Your task to perform on an android device: turn on location history Image 0: 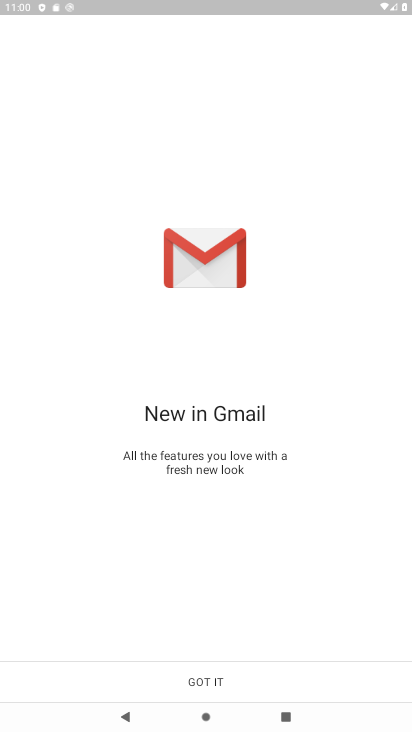
Step 0: press home button
Your task to perform on an android device: turn on location history Image 1: 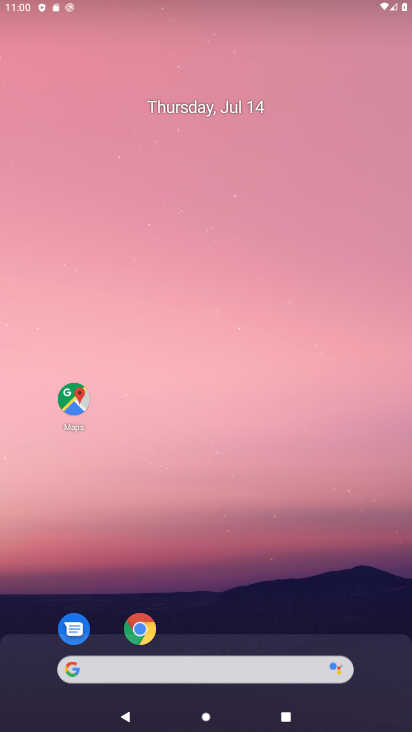
Step 1: drag from (213, 622) to (224, 52)
Your task to perform on an android device: turn on location history Image 2: 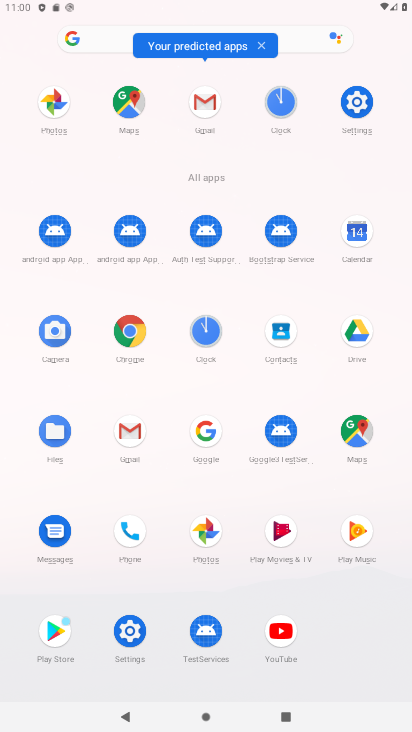
Step 2: click (368, 137)
Your task to perform on an android device: turn on location history Image 3: 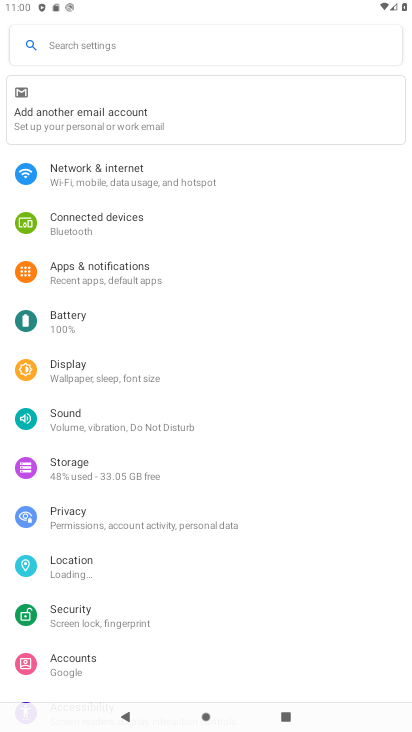
Step 3: drag from (230, 393) to (204, 612)
Your task to perform on an android device: turn on location history Image 4: 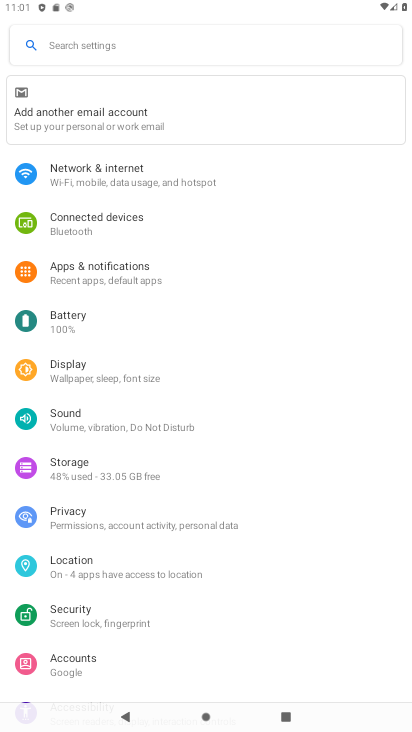
Step 4: click (144, 577)
Your task to perform on an android device: turn on location history Image 5: 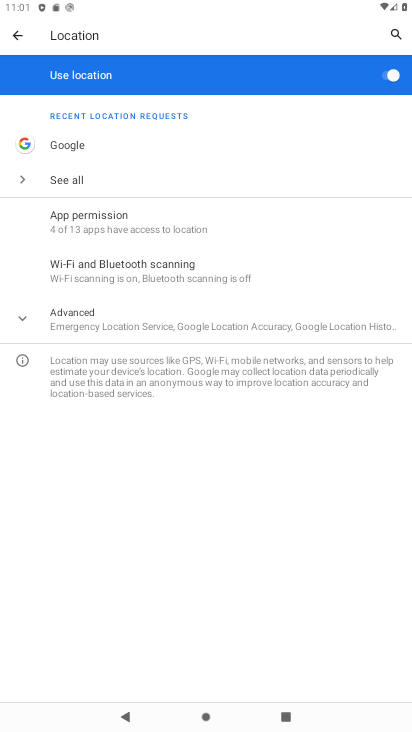
Step 5: click (182, 332)
Your task to perform on an android device: turn on location history Image 6: 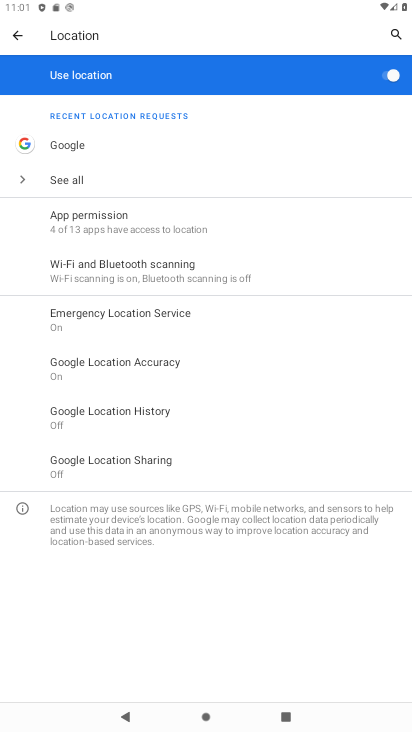
Step 6: click (159, 417)
Your task to perform on an android device: turn on location history Image 7: 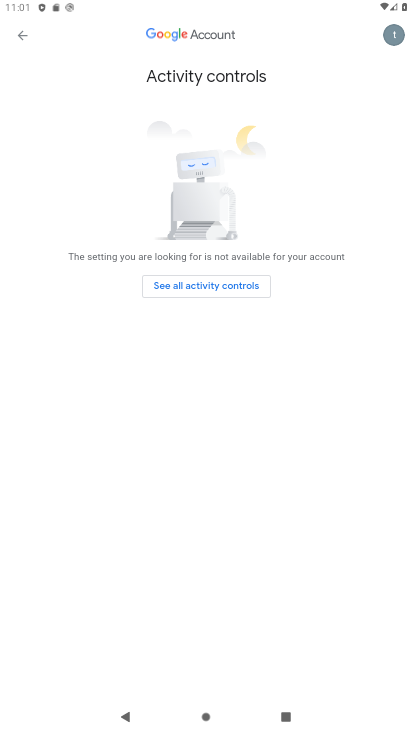
Step 7: task complete